Your task to perform on an android device: Open Reddit.com Image 0: 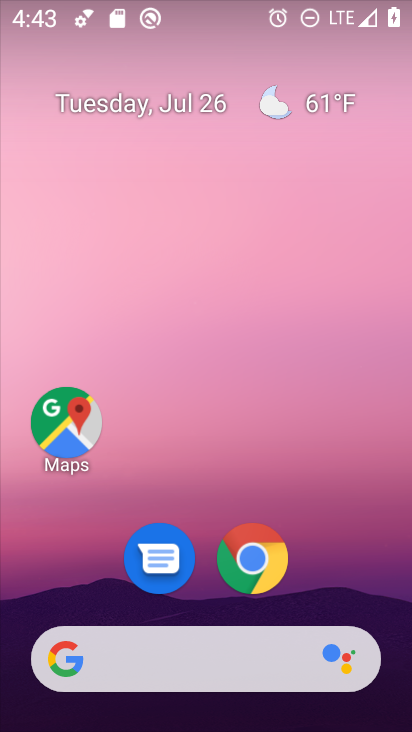
Step 0: click (252, 562)
Your task to perform on an android device: Open Reddit.com Image 1: 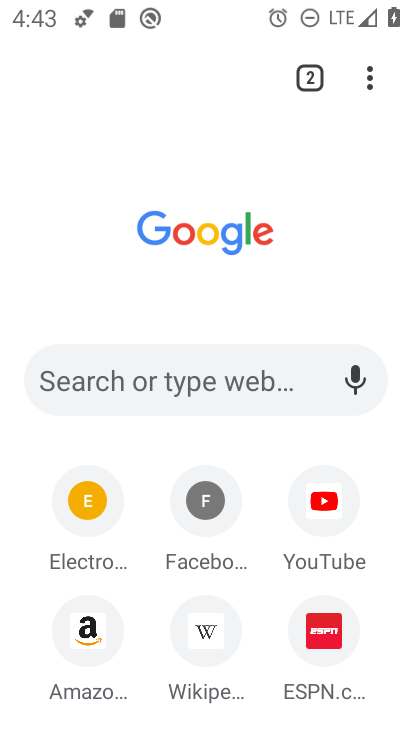
Step 1: click (126, 380)
Your task to perform on an android device: Open Reddit.com Image 2: 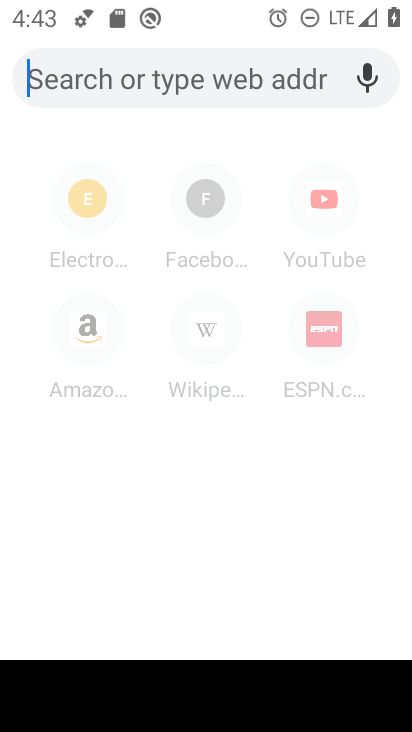
Step 2: type "reddit.com"
Your task to perform on an android device: Open Reddit.com Image 3: 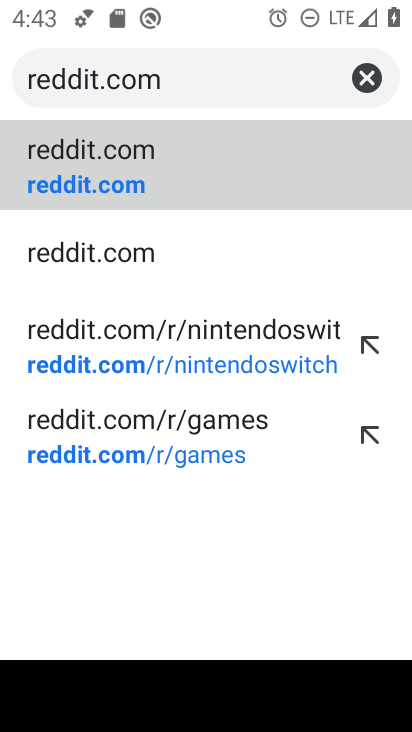
Step 3: click (150, 174)
Your task to perform on an android device: Open Reddit.com Image 4: 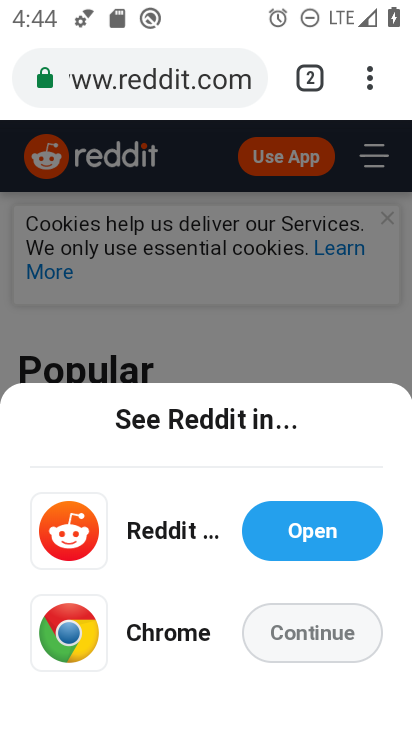
Step 4: task complete